Your task to perform on an android device: Search for "razer thresher" on walmart.com, select the first entry, add it to the cart, then select checkout. Image 0: 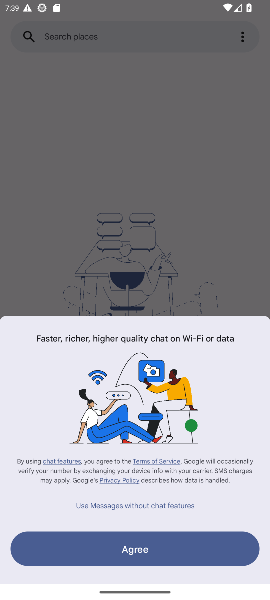
Step 0: press home button
Your task to perform on an android device: Search for "razer thresher" on walmart.com, select the first entry, add it to the cart, then select checkout. Image 1: 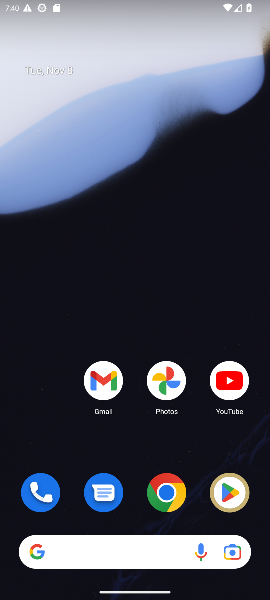
Step 1: click (167, 494)
Your task to perform on an android device: Search for "razer thresher" on walmart.com, select the first entry, add it to the cart, then select checkout. Image 2: 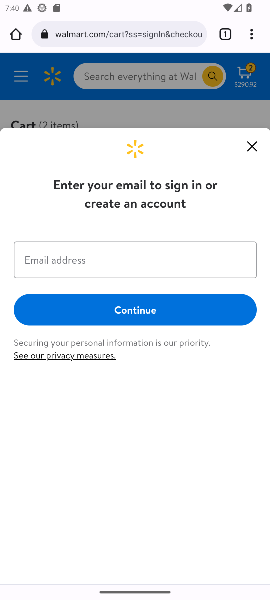
Step 2: click (134, 36)
Your task to perform on an android device: Search for "razer thresher" on walmart.com, select the first entry, add it to the cart, then select checkout. Image 3: 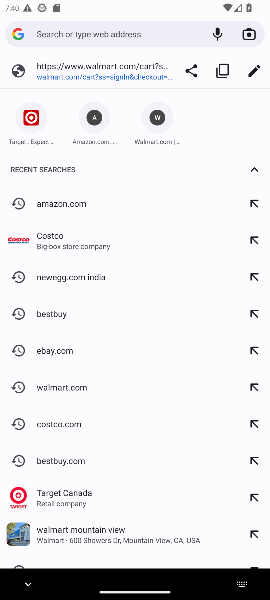
Step 3: type "walmart.com"
Your task to perform on an android device: Search for "razer thresher" on walmart.com, select the first entry, add it to the cart, then select checkout. Image 4: 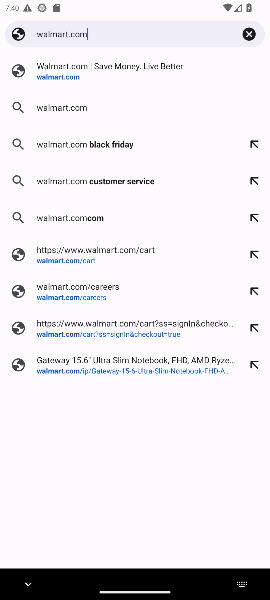
Step 4: press enter
Your task to perform on an android device: Search for "razer thresher" on walmart.com, select the first entry, add it to the cart, then select checkout. Image 5: 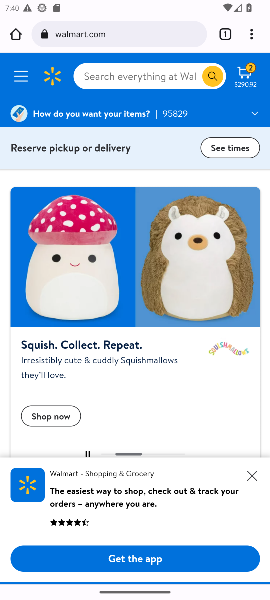
Step 5: click (158, 75)
Your task to perform on an android device: Search for "razer thresher" on walmart.com, select the first entry, add it to the cart, then select checkout. Image 6: 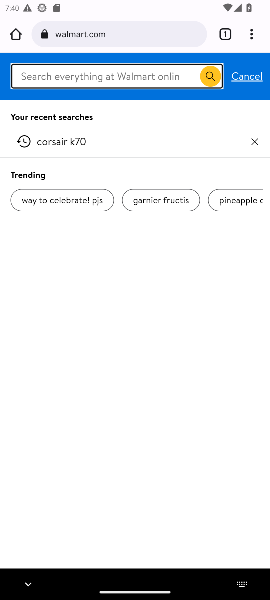
Step 6: type "razer thresher"
Your task to perform on an android device: Search for "razer thresher" on walmart.com, select the first entry, add it to the cart, then select checkout. Image 7: 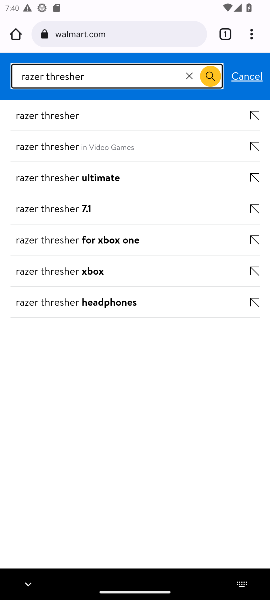
Step 7: press enter
Your task to perform on an android device: Search for "razer thresher" on walmart.com, select the first entry, add it to the cart, then select checkout. Image 8: 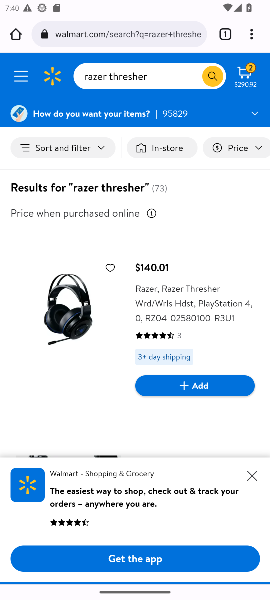
Step 8: drag from (177, 435) to (183, 265)
Your task to perform on an android device: Search for "razer thresher" on walmart.com, select the first entry, add it to the cart, then select checkout. Image 9: 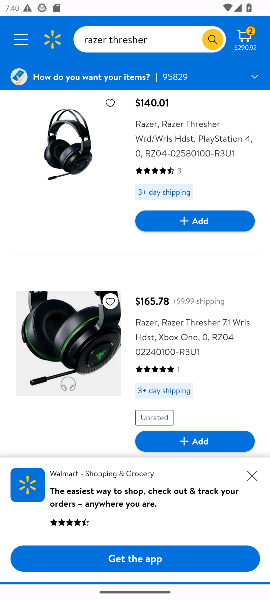
Step 9: click (203, 226)
Your task to perform on an android device: Search for "razer thresher" on walmart.com, select the first entry, add it to the cart, then select checkout. Image 10: 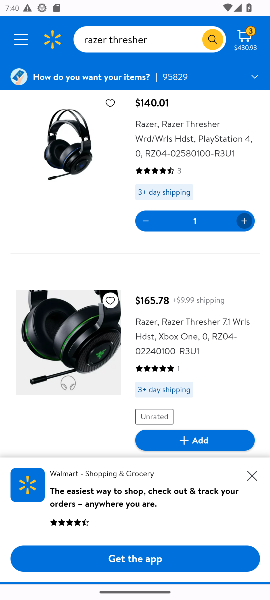
Step 10: click (236, 44)
Your task to perform on an android device: Search for "razer thresher" on walmart.com, select the first entry, add it to the cart, then select checkout. Image 11: 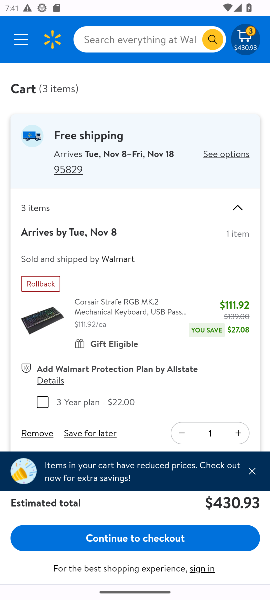
Step 11: click (191, 543)
Your task to perform on an android device: Search for "razer thresher" on walmart.com, select the first entry, add it to the cart, then select checkout. Image 12: 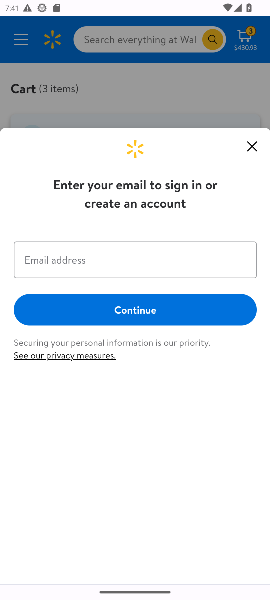
Step 12: task complete